Your task to perform on an android device: Open the phone app and click the voicemail tab. Image 0: 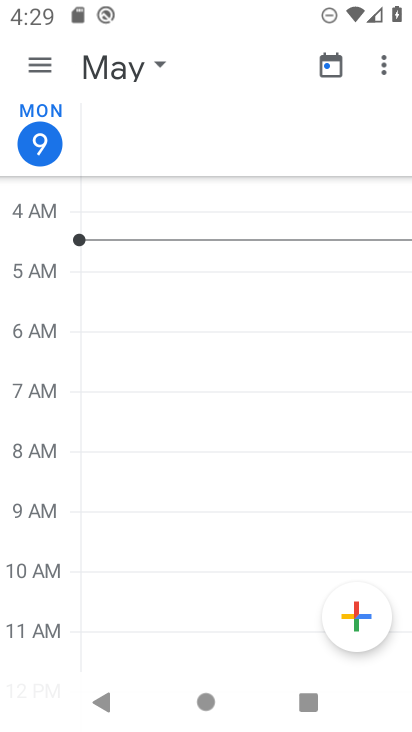
Step 0: press home button
Your task to perform on an android device: Open the phone app and click the voicemail tab. Image 1: 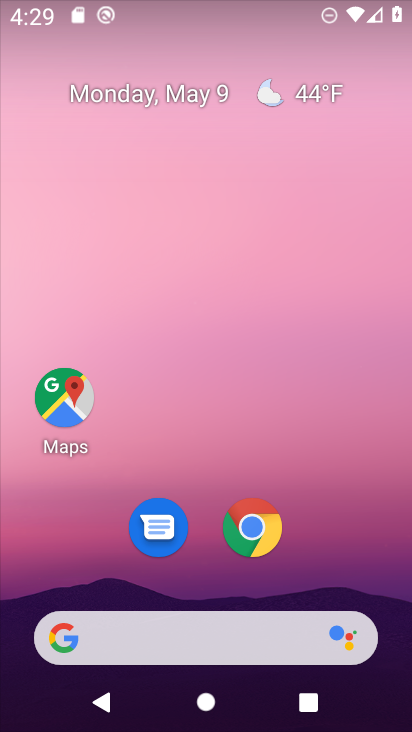
Step 1: drag from (184, 601) to (174, 67)
Your task to perform on an android device: Open the phone app and click the voicemail tab. Image 2: 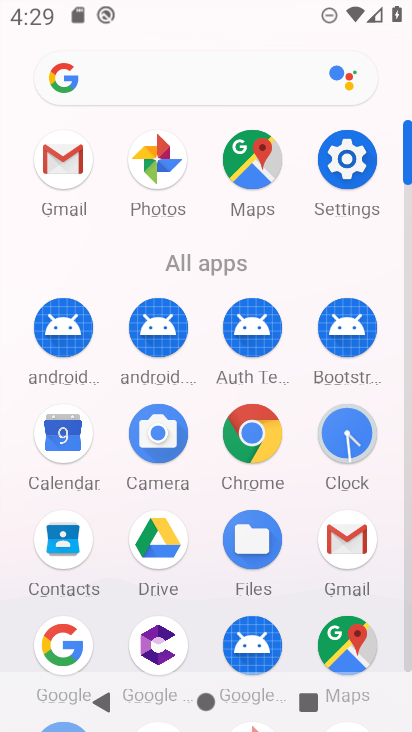
Step 2: drag from (211, 622) to (192, 330)
Your task to perform on an android device: Open the phone app and click the voicemail tab. Image 3: 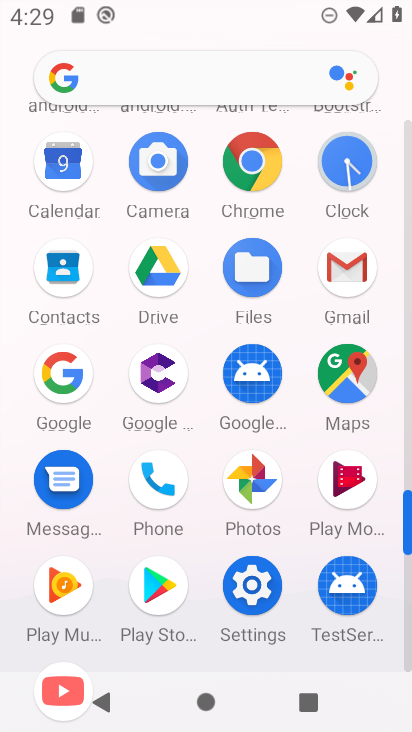
Step 3: click (166, 448)
Your task to perform on an android device: Open the phone app and click the voicemail tab. Image 4: 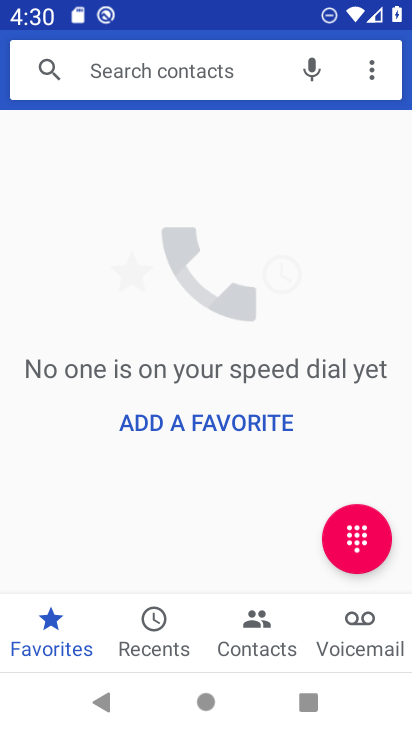
Step 4: click (368, 620)
Your task to perform on an android device: Open the phone app and click the voicemail tab. Image 5: 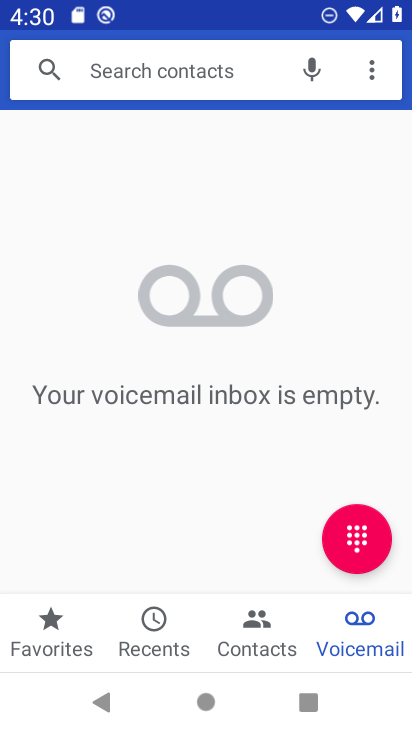
Step 5: task complete